Your task to perform on an android device: turn off improve location accuracy Image 0: 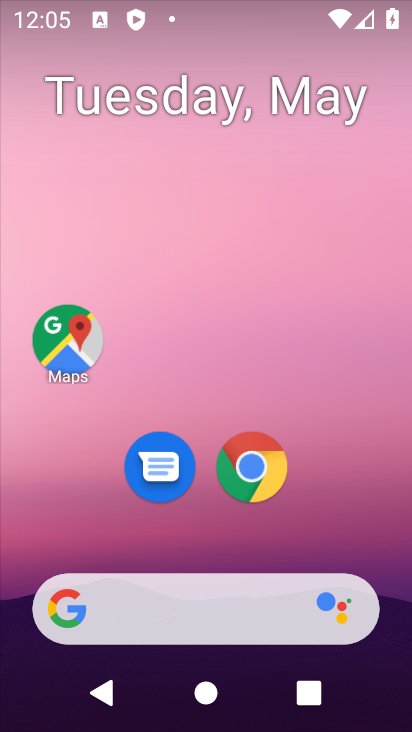
Step 0: drag from (322, 541) to (317, 80)
Your task to perform on an android device: turn off improve location accuracy Image 1: 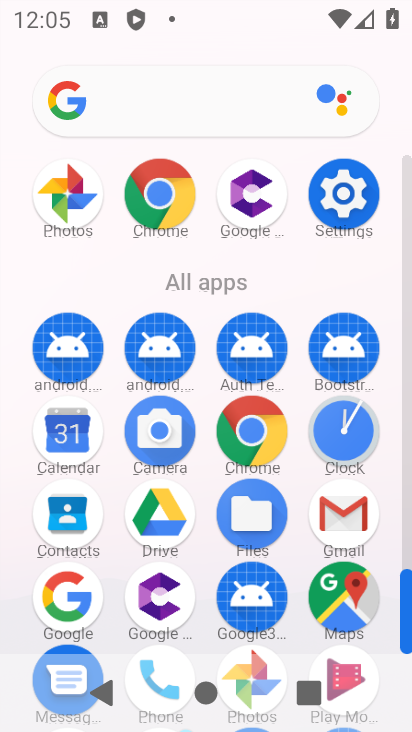
Step 1: click (346, 186)
Your task to perform on an android device: turn off improve location accuracy Image 2: 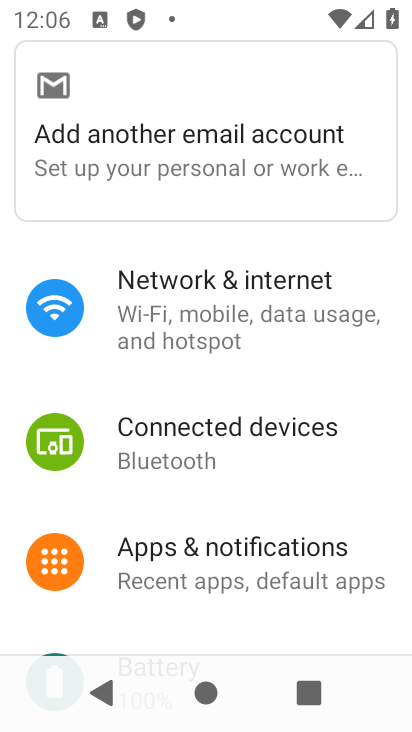
Step 2: drag from (296, 534) to (283, 253)
Your task to perform on an android device: turn off improve location accuracy Image 3: 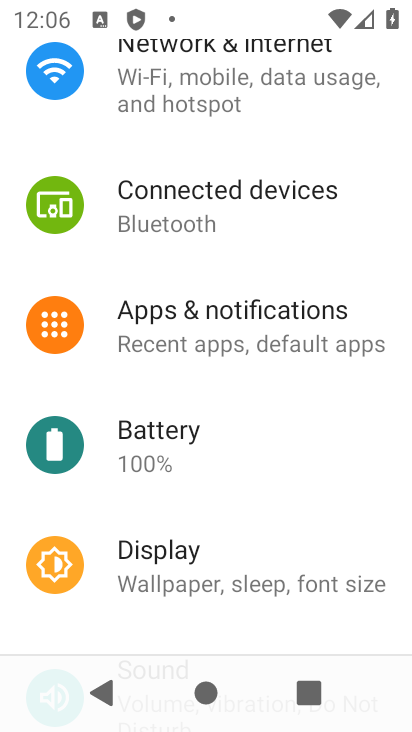
Step 3: drag from (260, 502) to (251, 170)
Your task to perform on an android device: turn off improve location accuracy Image 4: 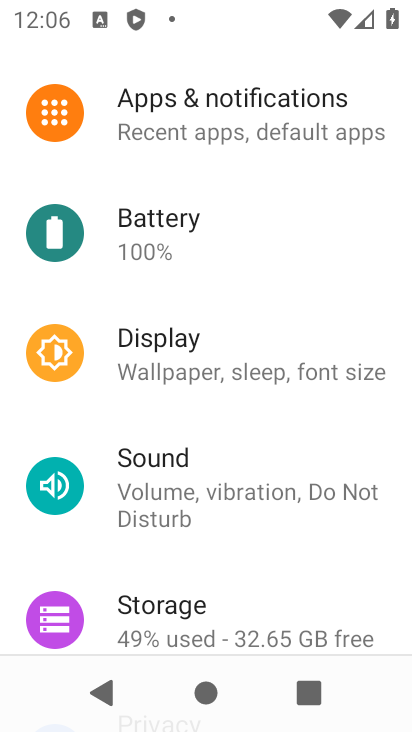
Step 4: drag from (251, 562) to (260, 201)
Your task to perform on an android device: turn off improve location accuracy Image 5: 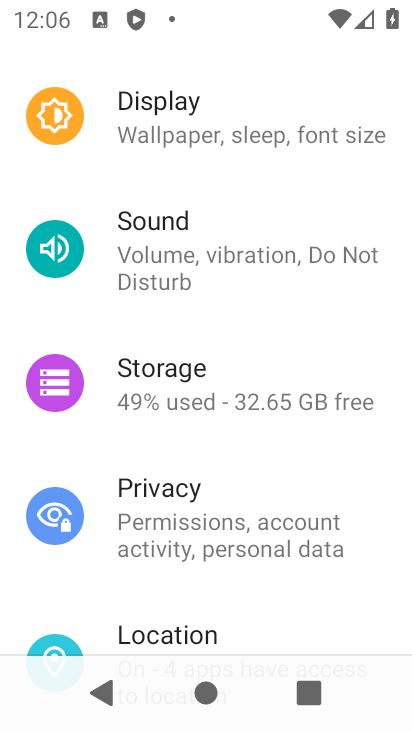
Step 5: drag from (242, 573) to (241, 329)
Your task to perform on an android device: turn off improve location accuracy Image 6: 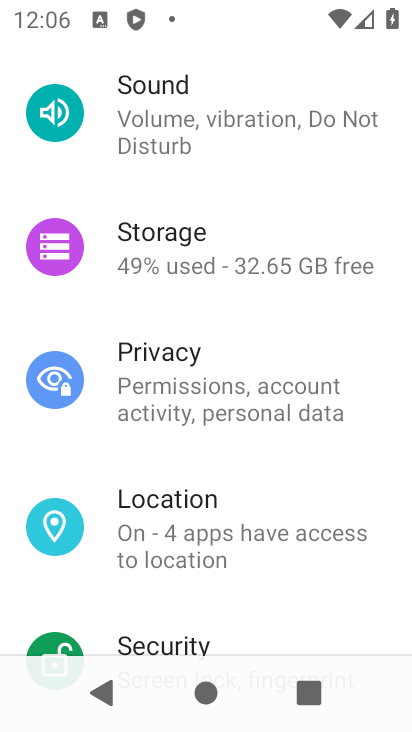
Step 6: click (219, 511)
Your task to perform on an android device: turn off improve location accuracy Image 7: 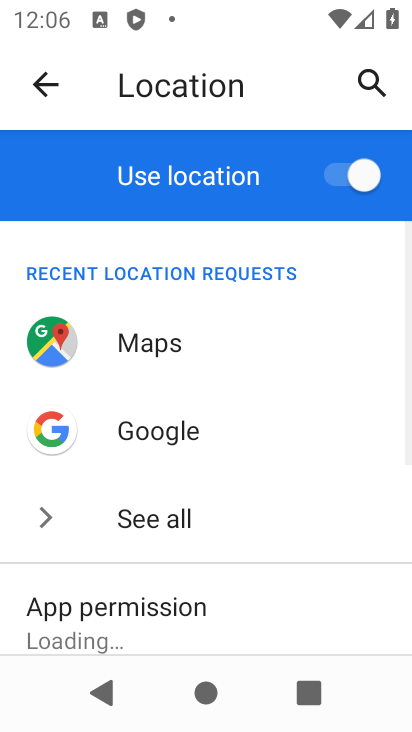
Step 7: drag from (266, 566) to (281, 278)
Your task to perform on an android device: turn off improve location accuracy Image 8: 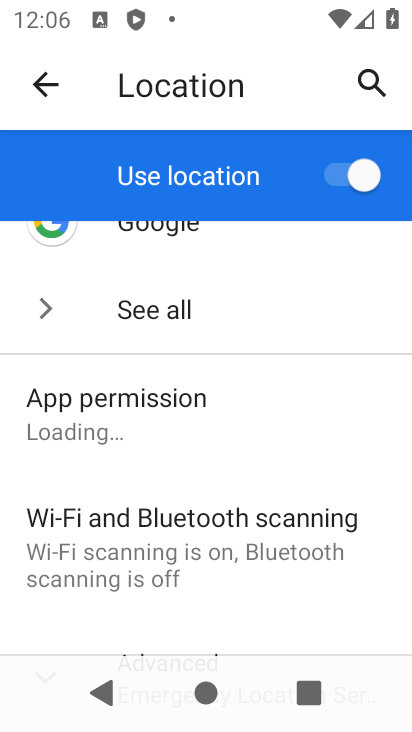
Step 8: drag from (298, 634) to (316, 289)
Your task to perform on an android device: turn off improve location accuracy Image 9: 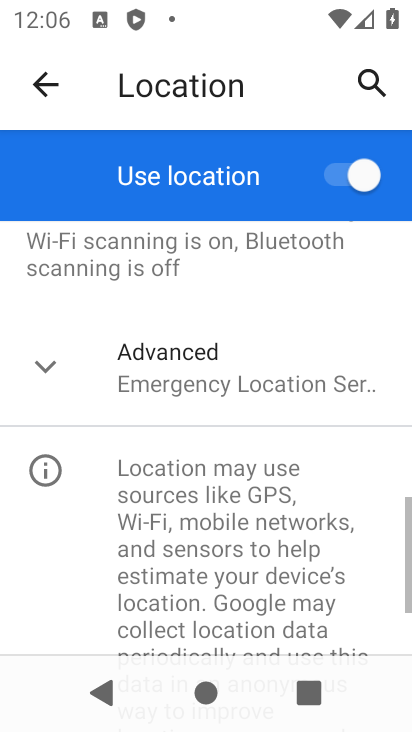
Step 9: click (284, 360)
Your task to perform on an android device: turn off improve location accuracy Image 10: 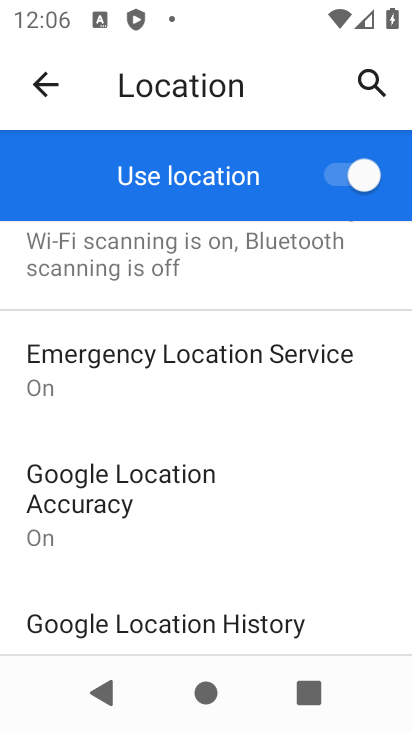
Step 10: click (153, 496)
Your task to perform on an android device: turn off improve location accuracy Image 11: 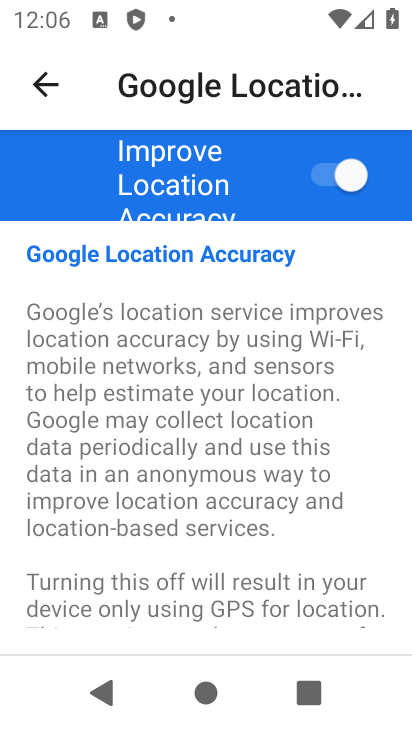
Step 11: click (326, 182)
Your task to perform on an android device: turn off improve location accuracy Image 12: 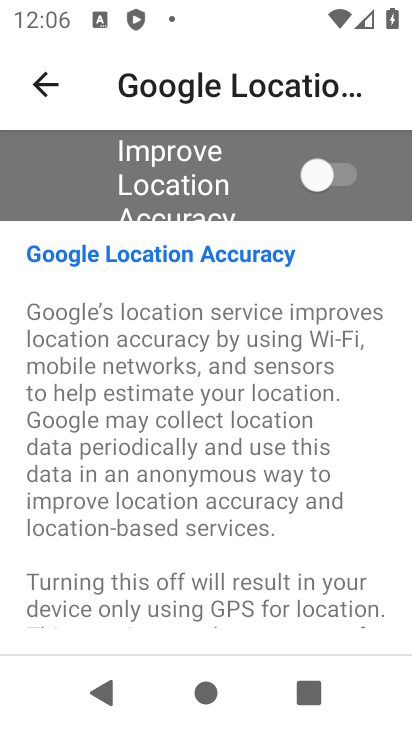
Step 12: task complete